Your task to perform on an android device: open a bookmark in the chrome app Image 0: 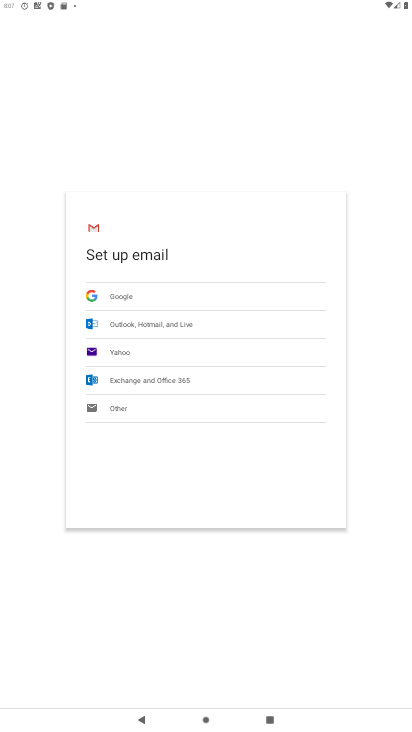
Step 0: press home button
Your task to perform on an android device: open a bookmark in the chrome app Image 1: 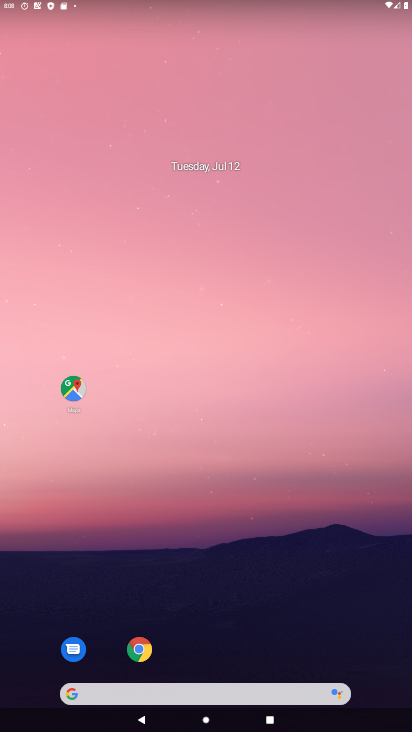
Step 1: drag from (277, 635) to (226, 106)
Your task to perform on an android device: open a bookmark in the chrome app Image 2: 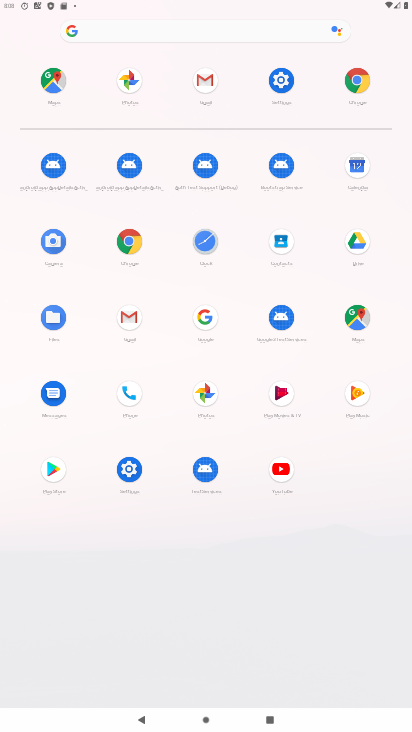
Step 2: click (129, 241)
Your task to perform on an android device: open a bookmark in the chrome app Image 3: 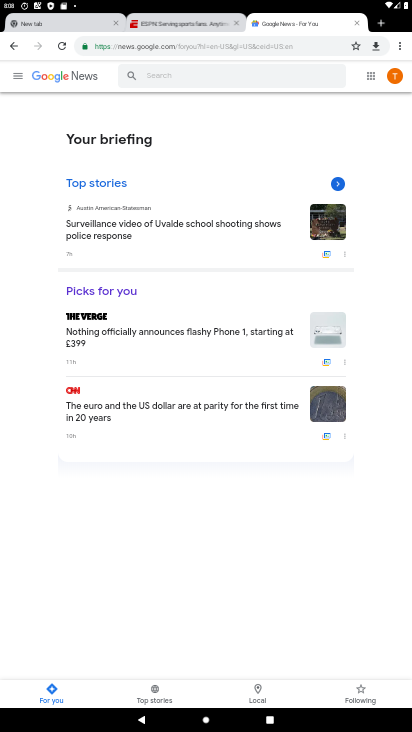
Step 3: drag from (397, 49) to (323, 123)
Your task to perform on an android device: open a bookmark in the chrome app Image 4: 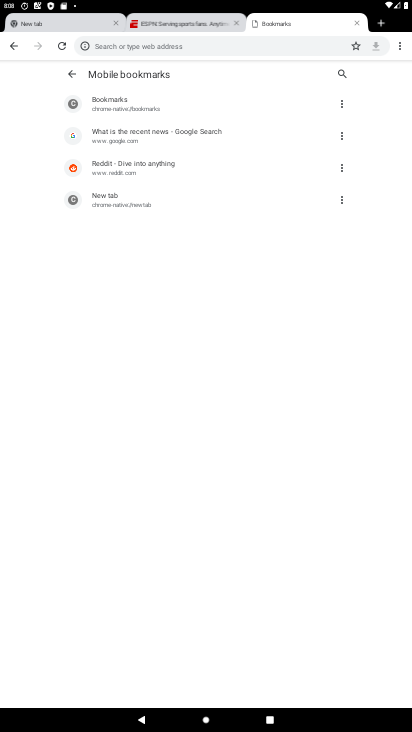
Step 4: click (95, 105)
Your task to perform on an android device: open a bookmark in the chrome app Image 5: 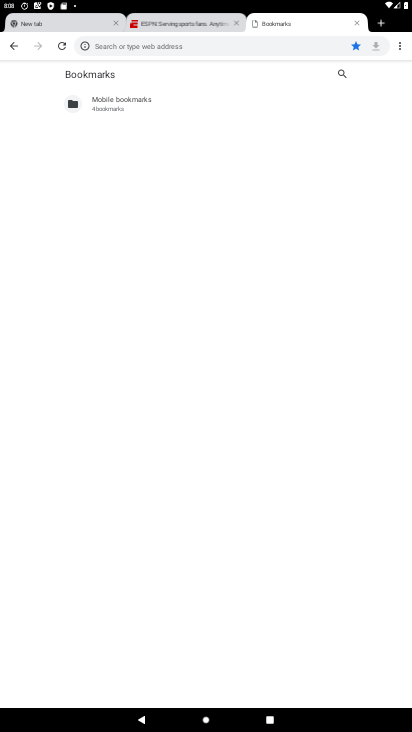
Step 5: click (111, 102)
Your task to perform on an android device: open a bookmark in the chrome app Image 6: 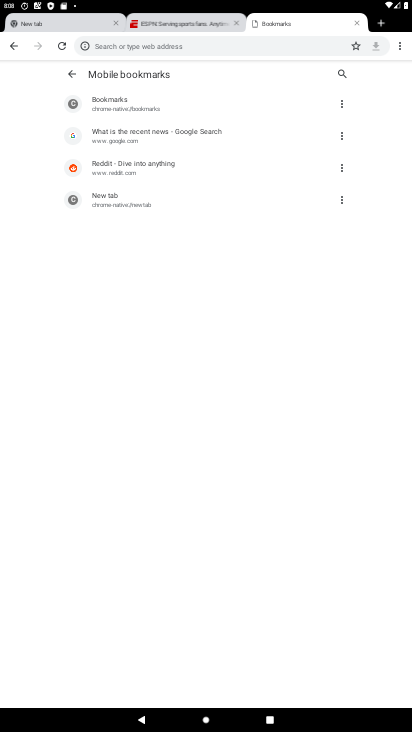
Step 6: click (121, 154)
Your task to perform on an android device: open a bookmark in the chrome app Image 7: 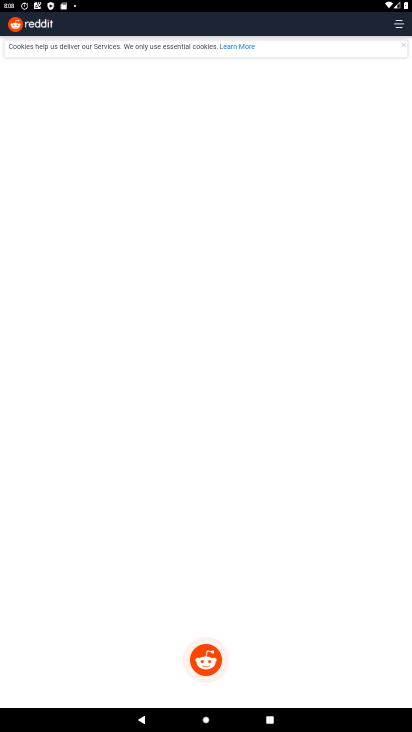
Step 7: task complete